Your task to perform on an android device: Clear all items from cart on target. Add "dell xps" to the cart on target Image 0: 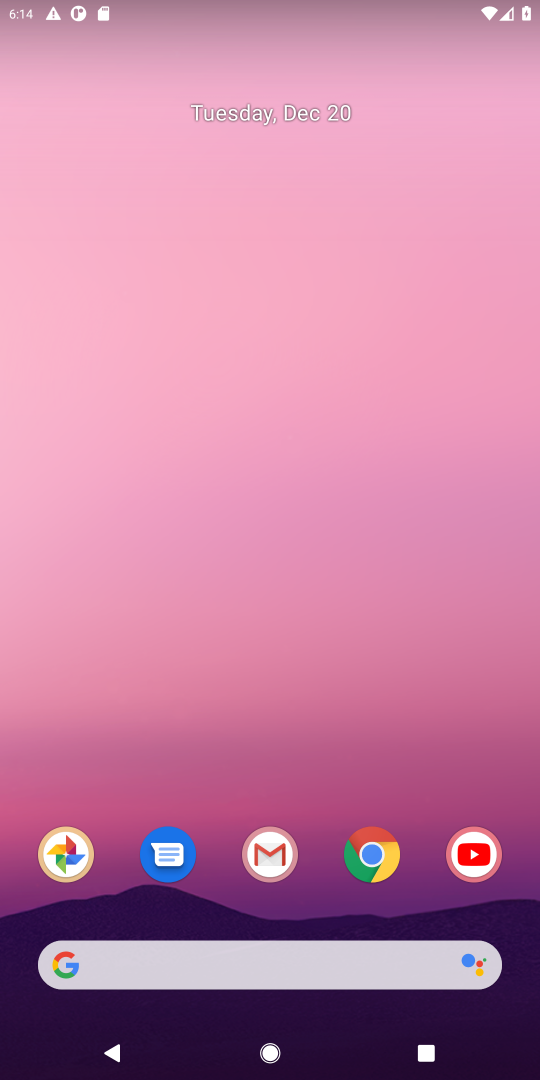
Step 0: click (368, 866)
Your task to perform on an android device: Clear all items from cart on target. Add "dell xps" to the cart on target Image 1: 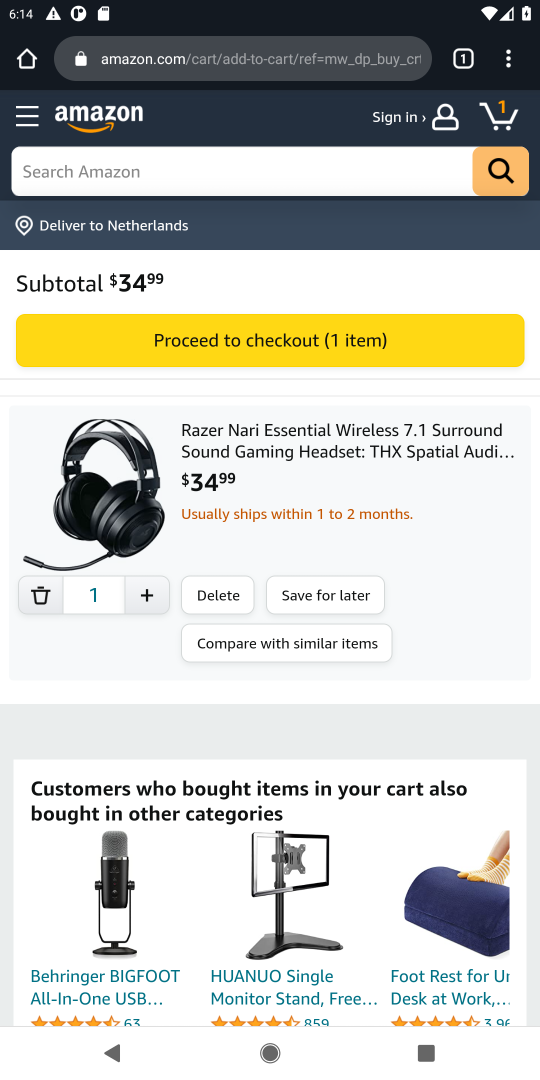
Step 1: click (198, 73)
Your task to perform on an android device: Clear all items from cart on target. Add "dell xps" to the cart on target Image 2: 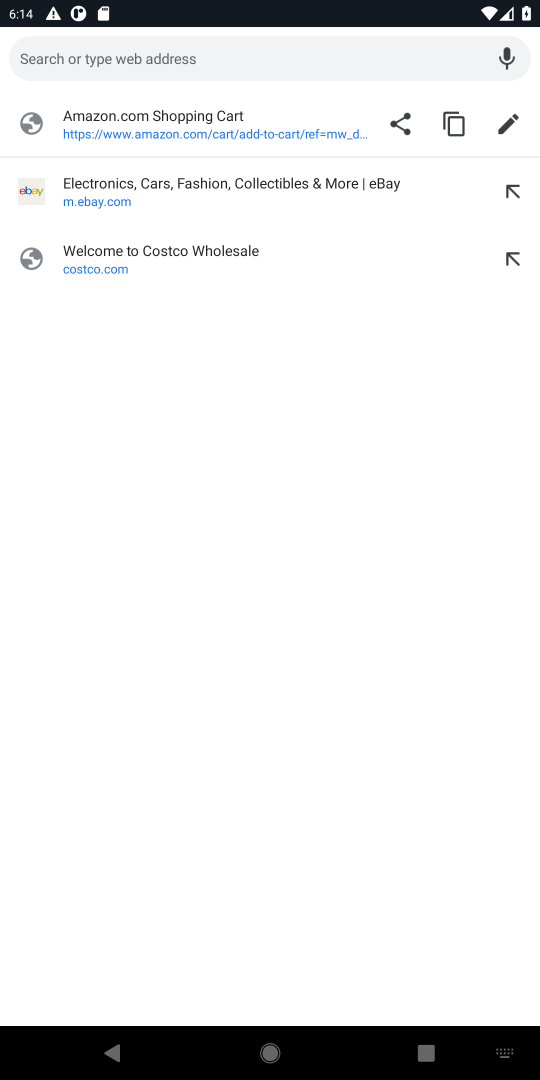
Step 2: type "target.com"
Your task to perform on an android device: Clear all items from cart on target. Add "dell xps" to the cart on target Image 3: 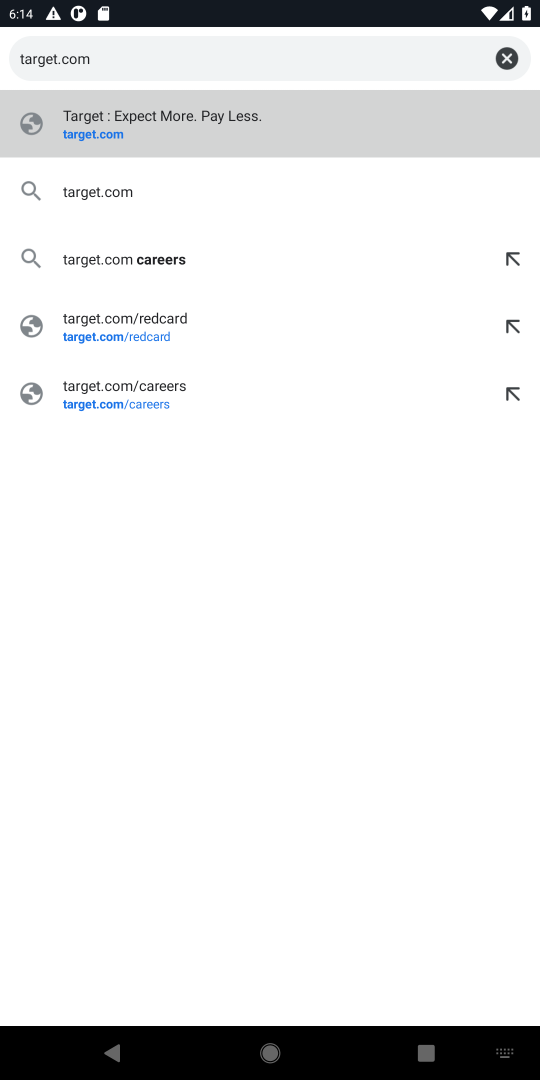
Step 3: click (71, 138)
Your task to perform on an android device: Clear all items from cart on target. Add "dell xps" to the cart on target Image 4: 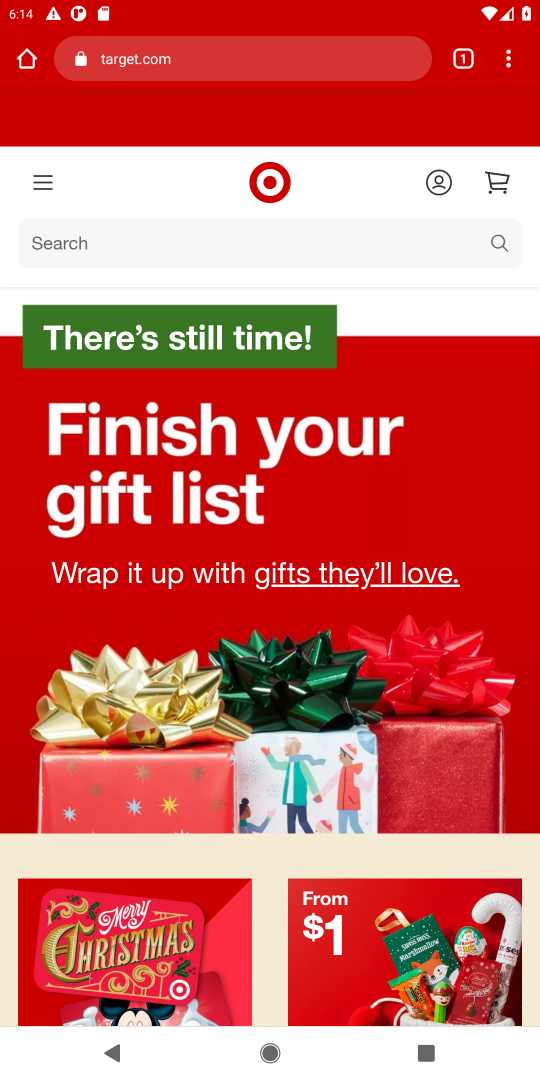
Step 4: click (497, 189)
Your task to perform on an android device: Clear all items from cart on target. Add "dell xps" to the cart on target Image 5: 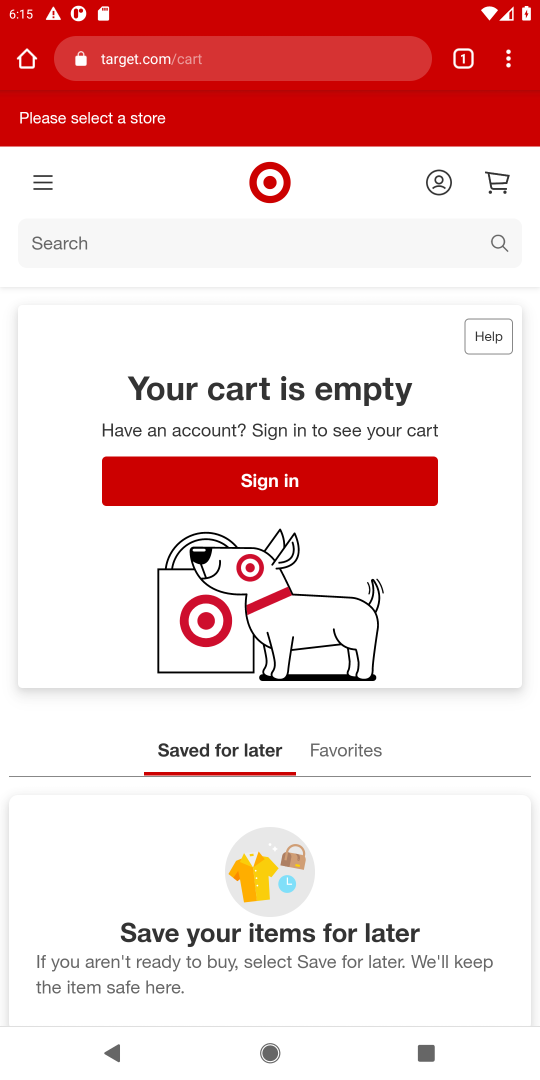
Step 5: click (45, 249)
Your task to perform on an android device: Clear all items from cart on target. Add "dell xps" to the cart on target Image 6: 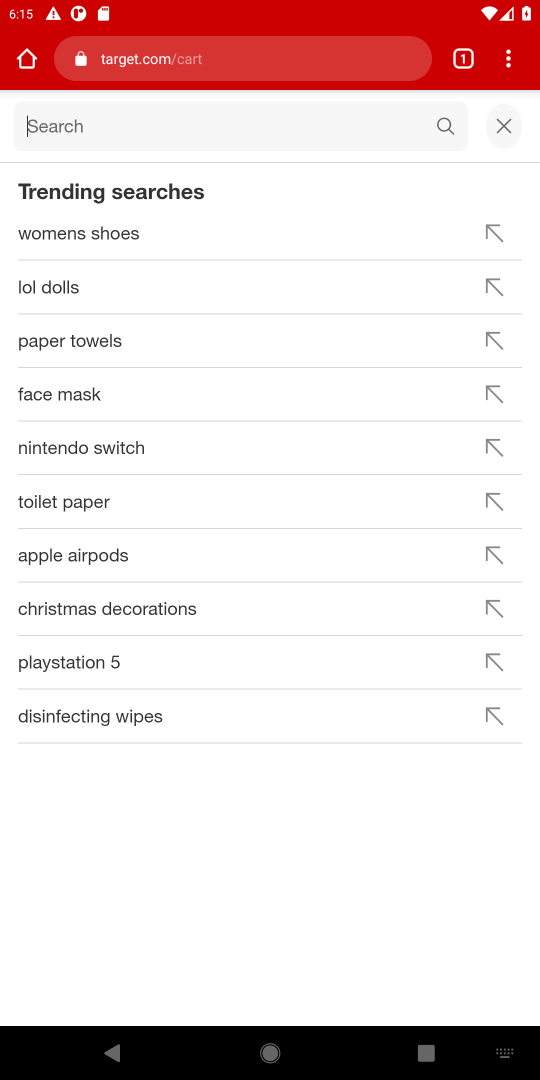
Step 6: type "dell xps"
Your task to perform on an android device: Clear all items from cart on target. Add "dell xps" to the cart on target Image 7: 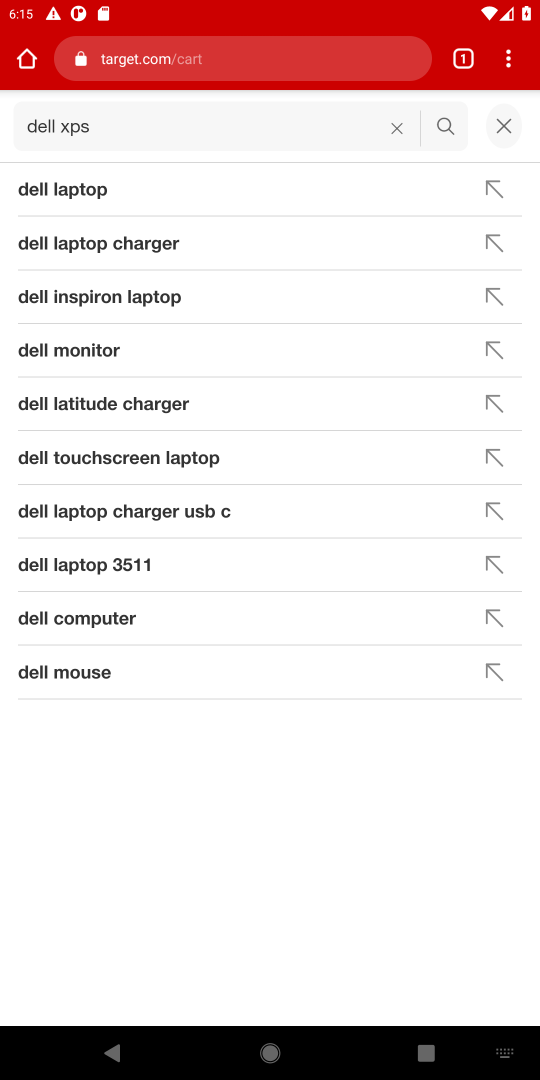
Step 7: click (453, 134)
Your task to perform on an android device: Clear all items from cart on target. Add "dell xps" to the cart on target Image 8: 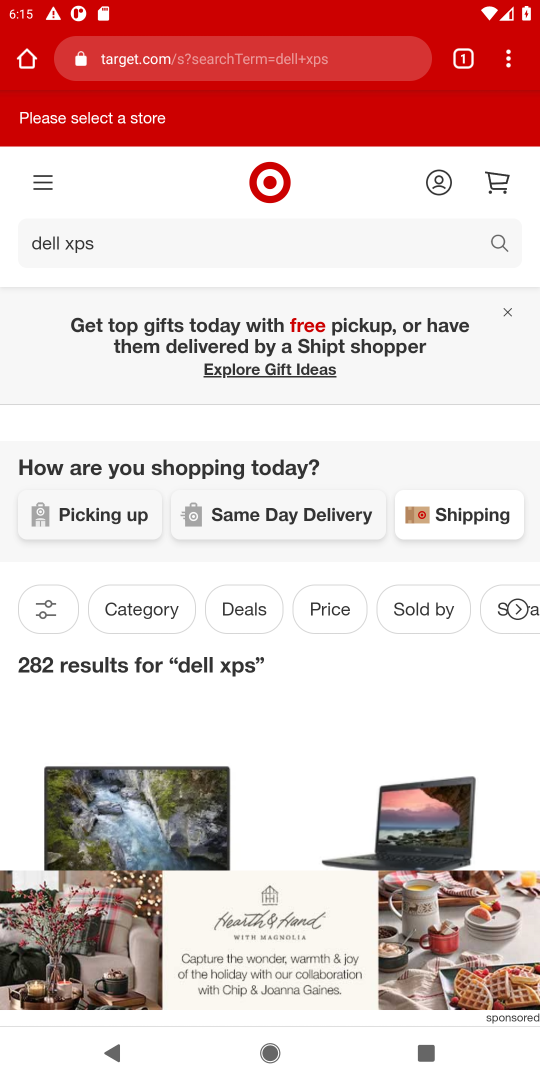
Step 8: task complete